Your task to perform on an android device: What's the weather today? Image 0: 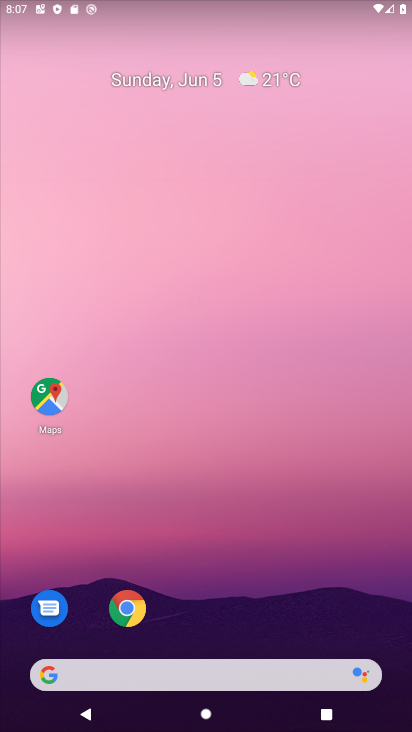
Step 0: drag from (335, 615) to (287, 232)
Your task to perform on an android device: What's the weather today? Image 1: 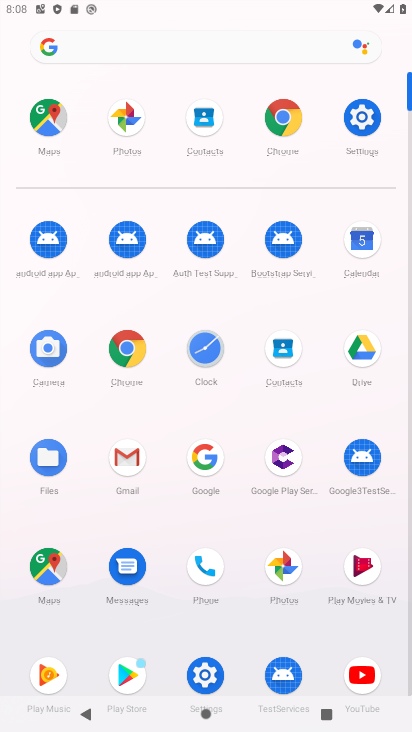
Step 1: click (50, 112)
Your task to perform on an android device: What's the weather today? Image 2: 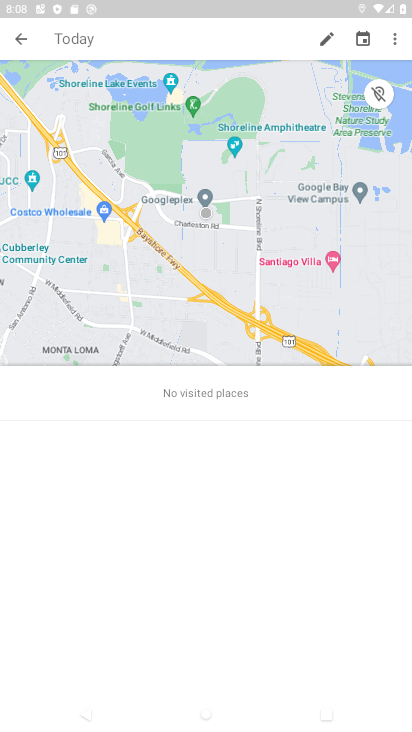
Step 2: click (177, 36)
Your task to perform on an android device: What's the weather today? Image 3: 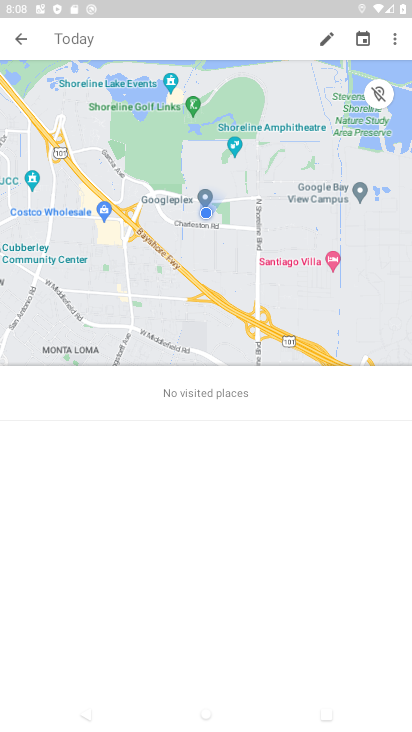
Step 3: click (22, 47)
Your task to perform on an android device: What's the weather today? Image 4: 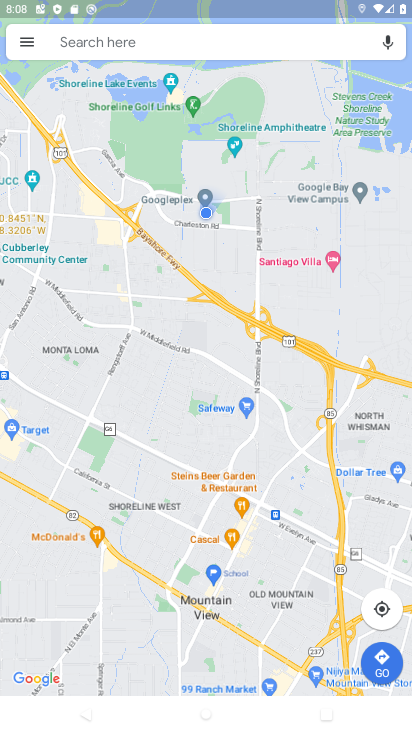
Step 4: click (122, 48)
Your task to perform on an android device: What's the weather today? Image 5: 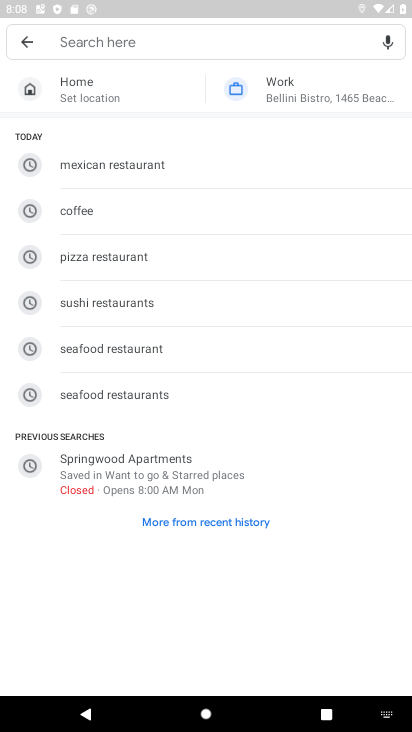
Step 5: type "what's the weather today"
Your task to perform on an android device: What's the weather today? Image 6: 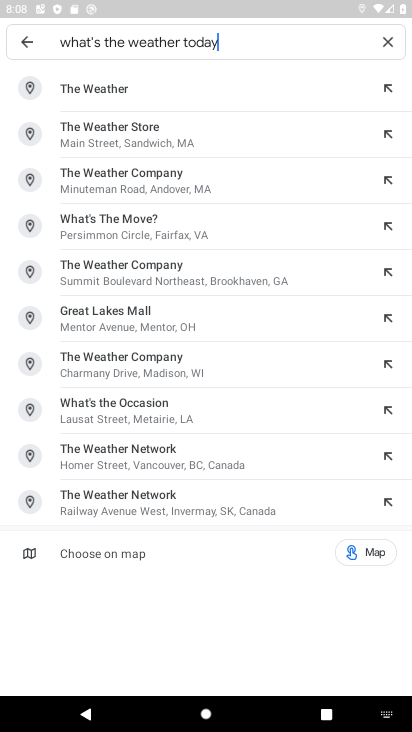
Step 6: click (107, 88)
Your task to perform on an android device: What's the weather today? Image 7: 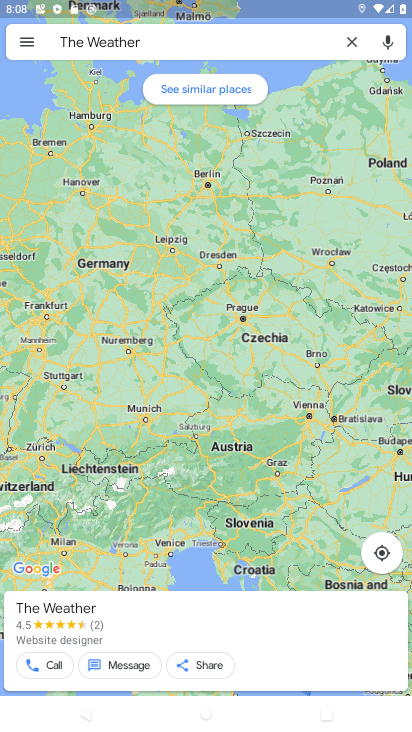
Step 7: task complete